Your task to perform on an android device: Open Google Maps and go to "Timeline" Image 0: 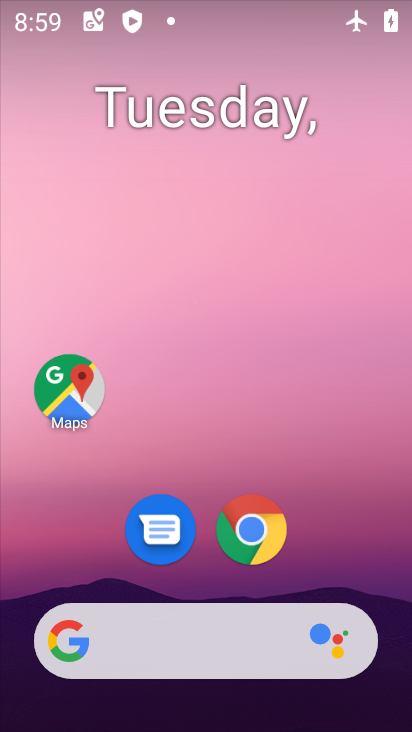
Step 0: drag from (215, 673) to (217, 260)
Your task to perform on an android device: Open Google Maps and go to "Timeline" Image 1: 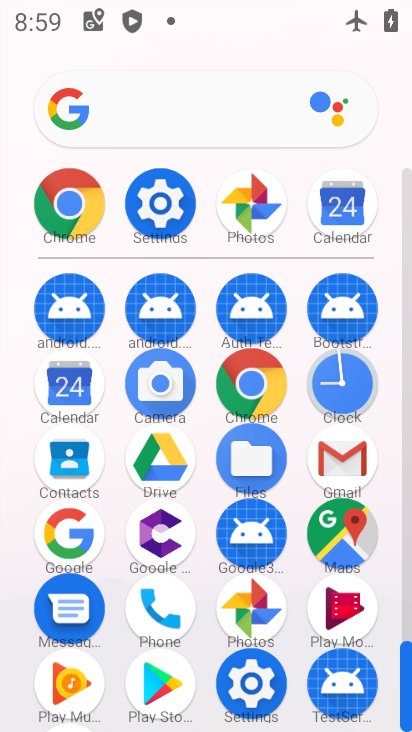
Step 1: click (172, 220)
Your task to perform on an android device: Open Google Maps and go to "Timeline" Image 2: 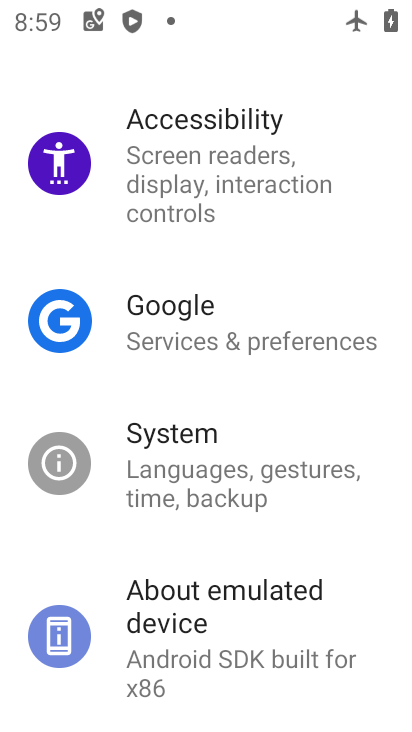
Step 2: press home button
Your task to perform on an android device: Open Google Maps and go to "Timeline" Image 3: 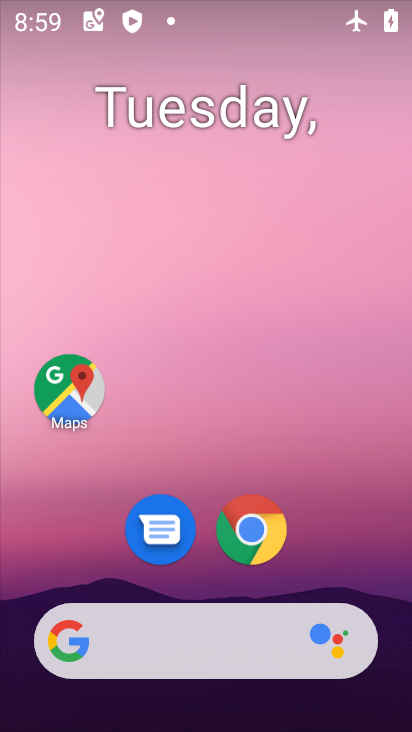
Step 3: click (92, 399)
Your task to perform on an android device: Open Google Maps and go to "Timeline" Image 4: 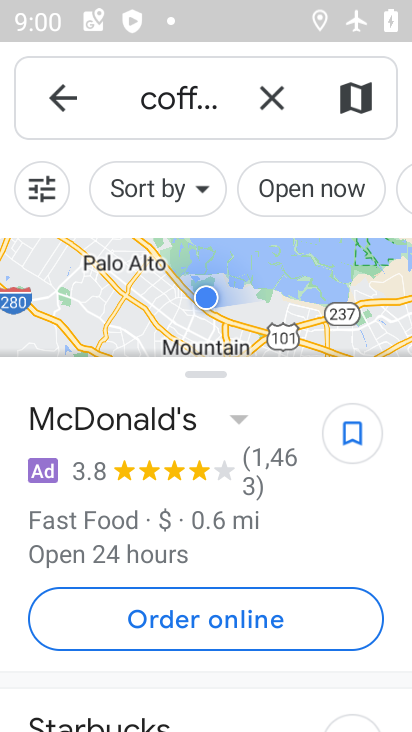
Step 4: click (62, 110)
Your task to perform on an android device: Open Google Maps and go to "Timeline" Image 5: 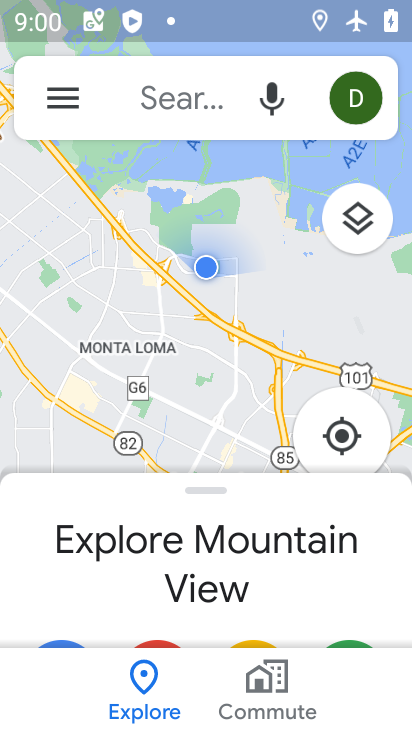
Step 5: click (69, 104)
Your task to perform on an android device: Open Google Maps and go to "Timeline" Image 6: 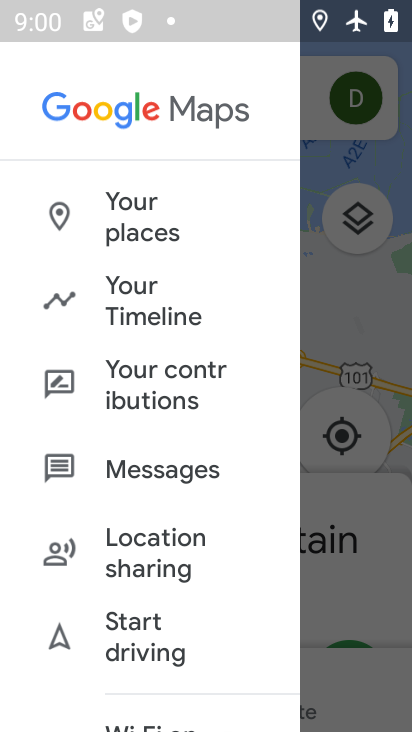
Step 6: click (132, 312)
Your task to perform on an android device: Open Google Maps and go to "Timeline" Image 7: 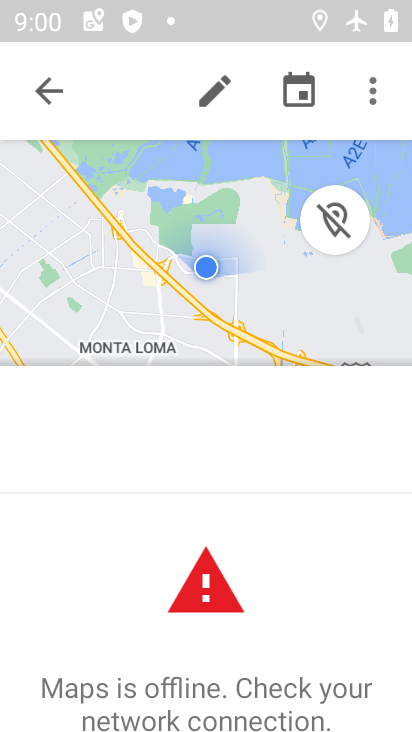
Step 7: task complete